Your task to perform on an android device: Open Google Chrome Image 0: 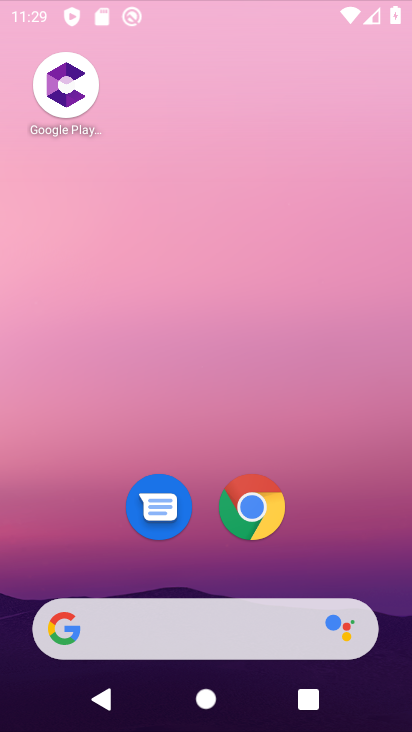
Step 0: click (306, 93)
Your task to perform on an android device: Open Google Chrome Image 1: 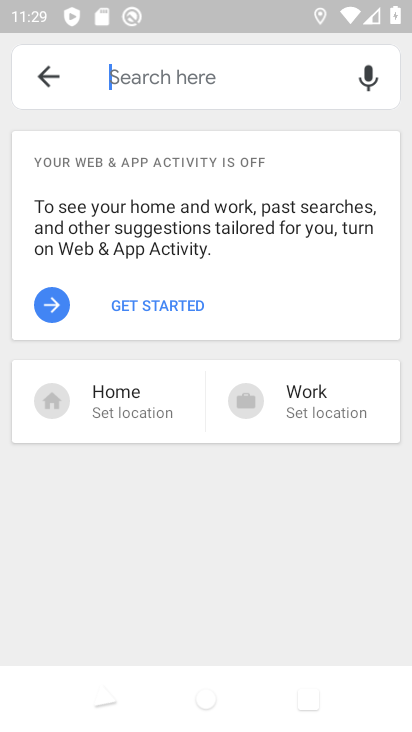
Step 1: press home button
Your task to perform on an android device: Open Google Chrome Image 2: 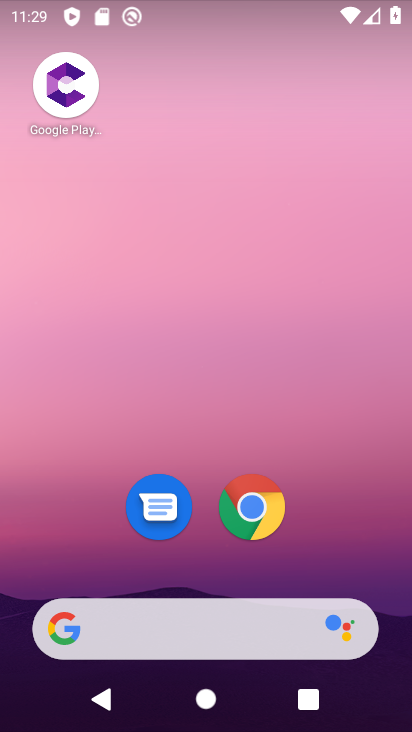
Step 2: click (256, 505)
Your task to perform on an android device: Open Google Chrome Image 3: 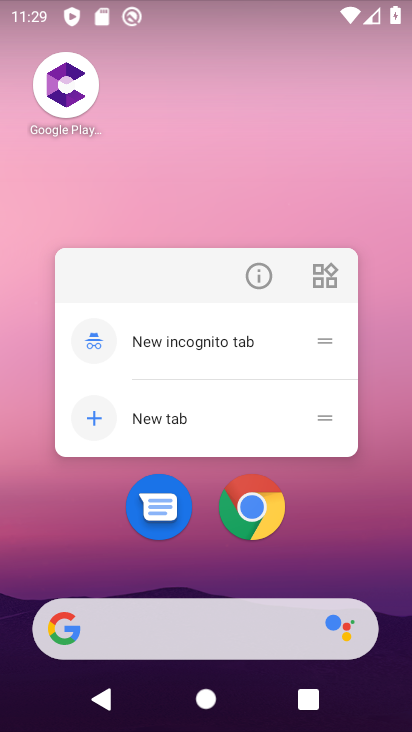
Step 3: click (255, 500)
Your task to perform on an android device: Open Google Chrome Image 4: 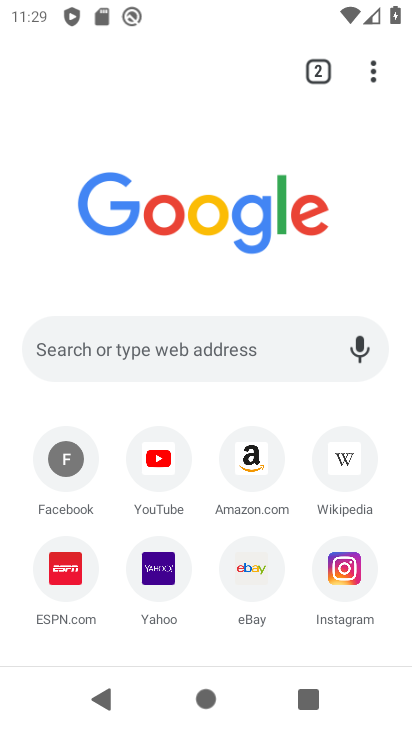
Step 4: task complete